Your task to perform on an android device: toggle notifications settings in the gmail app Image 0: 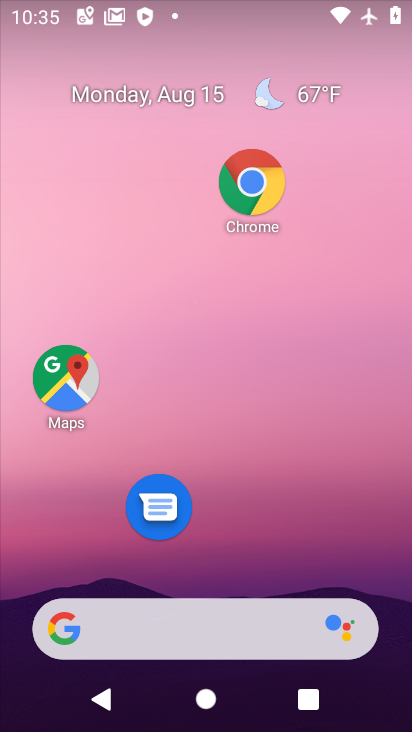
Step 0: drag from (295, 547) to (328, 138)
Your task to perform on an android device: toggle notifications settings in the gmail app Image 1: 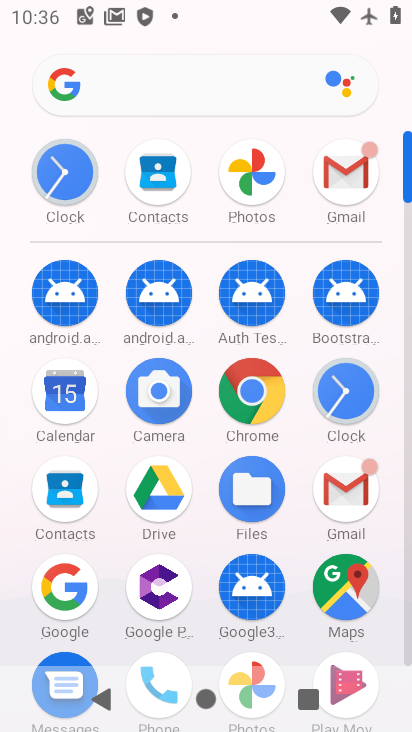
Step 1: click (404, 651)
Your task to perform on an android device: toggle notifications settings in the gmail app Image 2: 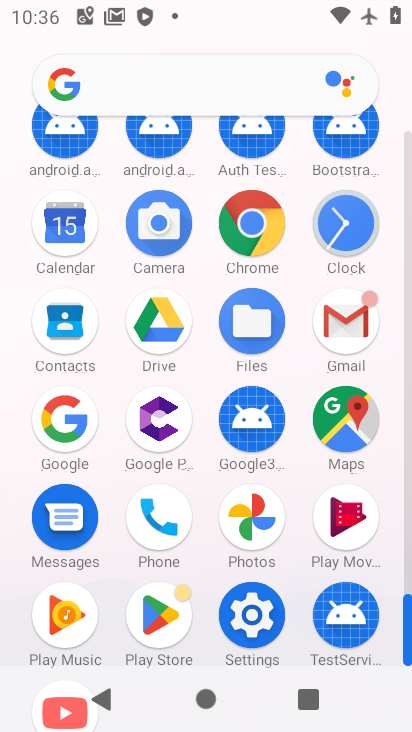
Step 2: click (404, 651)
Your task to perform on an android device: toggle notifications settings in the gmail app Image 3: 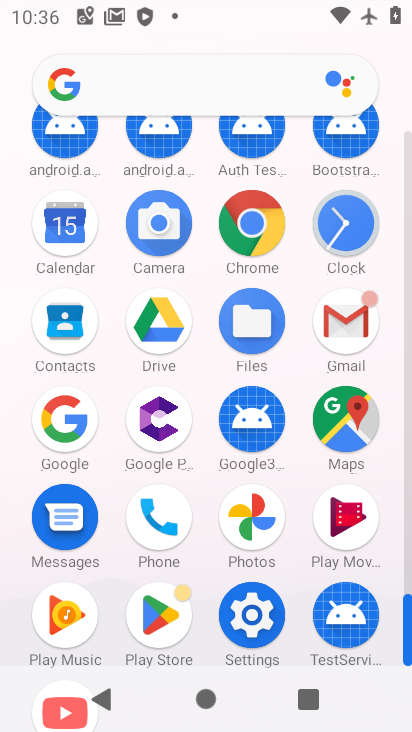
Step 3: click (246, 639)
Your task to perform on an android device: toggle notifications settings in the gmail app Image 4: 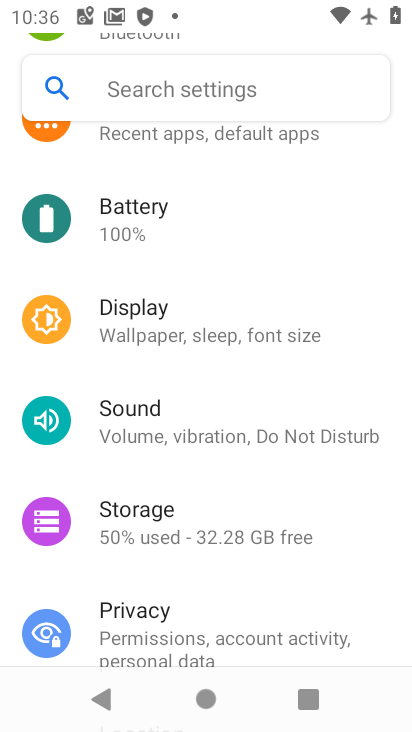
Step 4: drag from (319, 527) to (281, 258)
Your task to perform on an android device: toggle notifications settings in the gmail app Image 5: 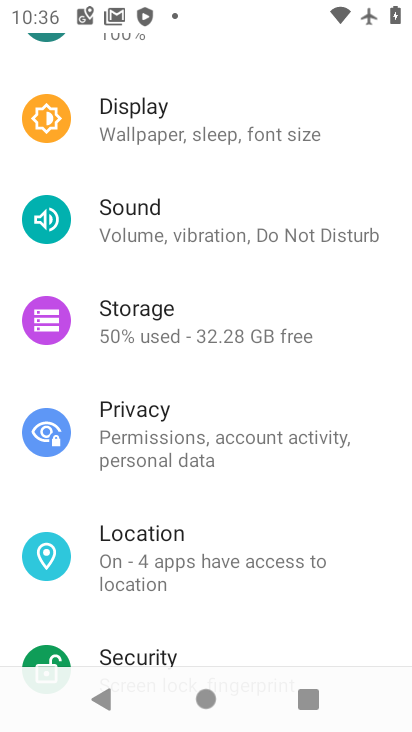
Step 5: drag from (287, 570) to (265, 213)
Your task to perform on an android device: toggle notifications settings in the gmail app Image 6: 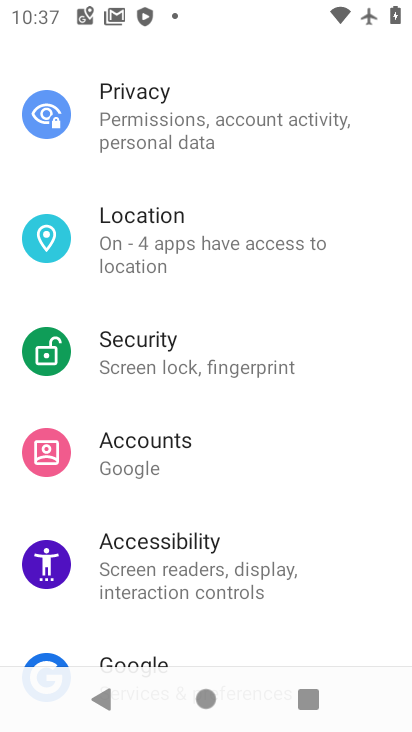
Step 6: drag from (268, 407) to (239, 128)
Your task to perform on an android device: toggle notifications settings in the gmail app Image 7: 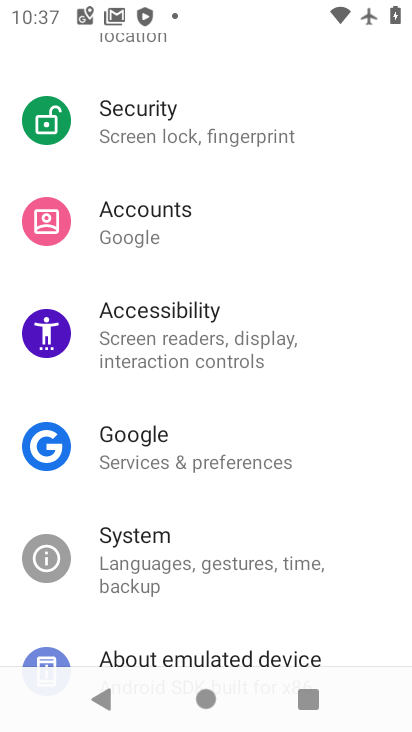
Step 7: drag from (243, 413) to (339, 730)
Your task to perform on an android device: toggle notifications settings in the gmail app Image 8: 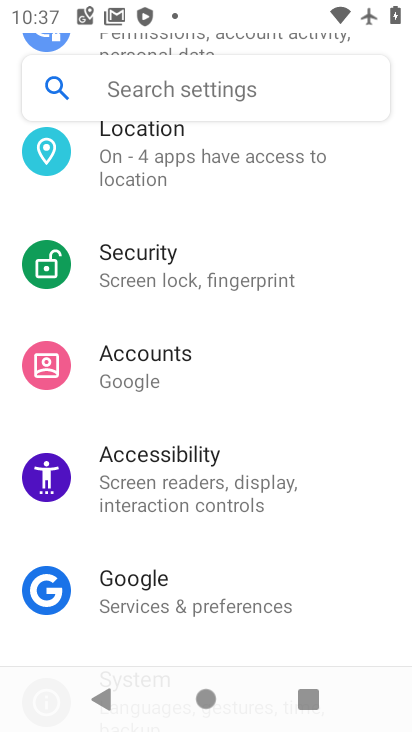
Step 8: drag from (179, 383) to (276, 712)
Your task to perform on an android device: toggle notifications settings in the gmail app Image 9: 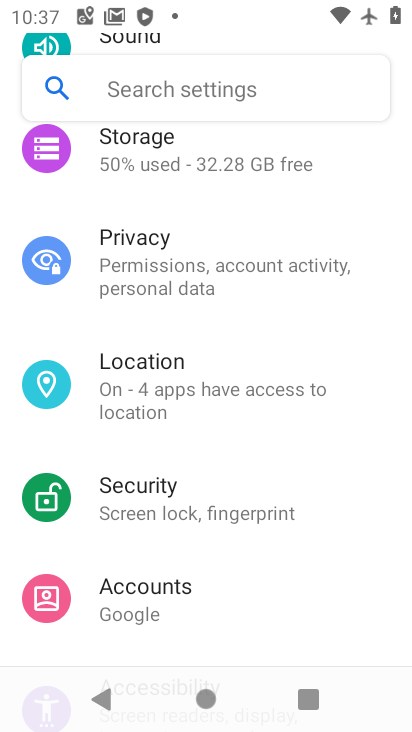
Step 9: drag from (193, 337) to (209, 678)
Your task to perform on an android device: toggle notifications settings in the gmail app Image 10: 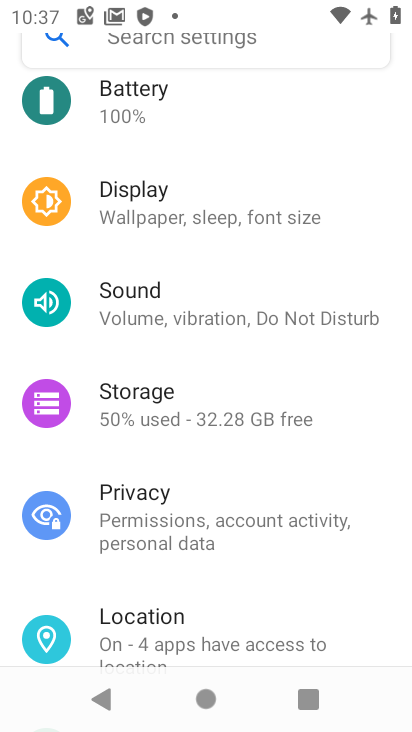
Step 10: drag from (193, 166) to (218, 365)
Your task to perform on an android device: toggle notifications settings in the gmail app Image 11: 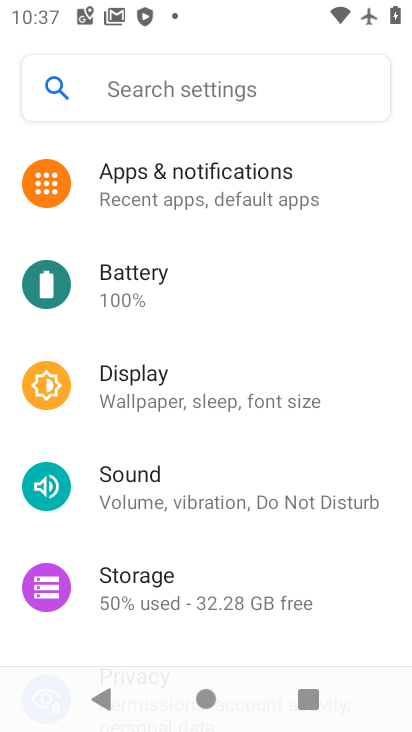
Step 11: click (205, 212)
Your task to perform on an android device: toggle notifications settings in the gmail app Image 12: 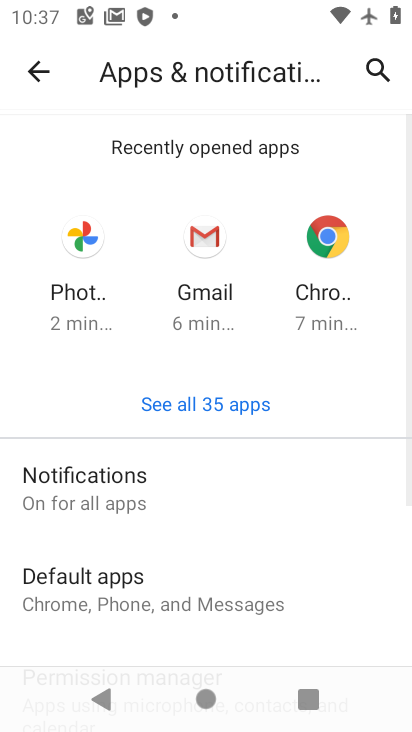
Step 12: task complete